Your task to perform on an android device: Open Chrome and go to the settings page Image 0: 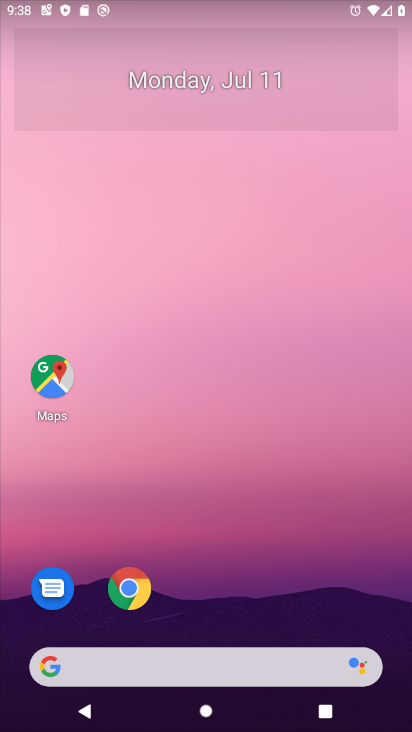
Step 0: click (140, 595)
Your task to perform on an android device: Open Chrome and go to the settings page Image 1: 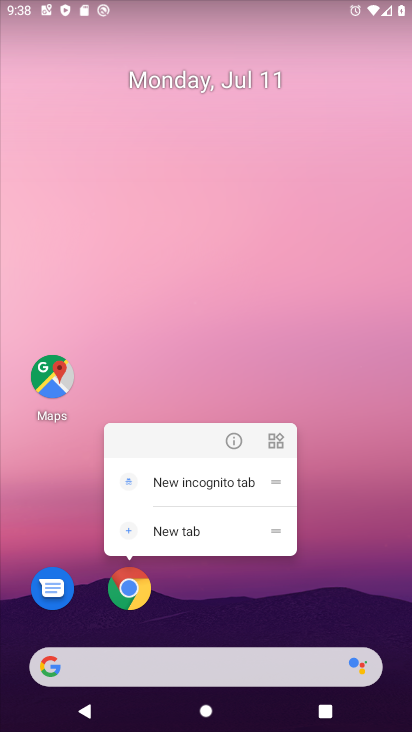
Step 1: click (130, 592)
Your task to perform on an android device: Open Chrome and go to the settings page Image 2: 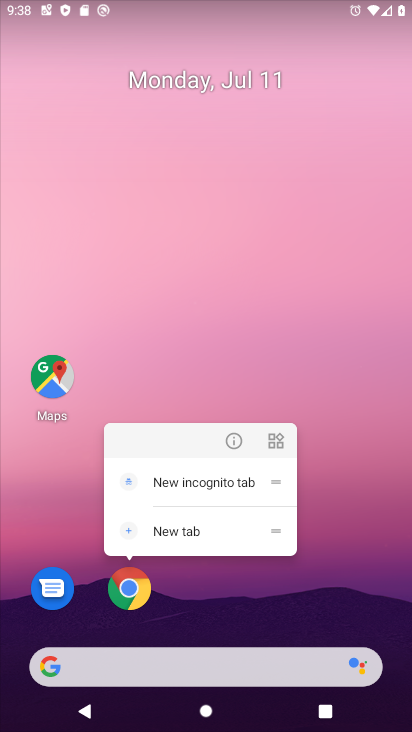
Step 2: click (123, 597)
Your task to perform on an android device: Open Chrome and go to the settings page Image 3: 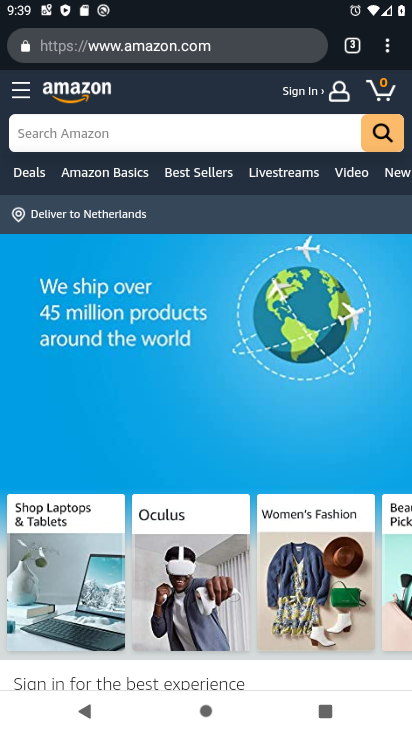
Step 3: task complete